Your task to perform on an android device: clear all cookies in the chrome app Image 0: 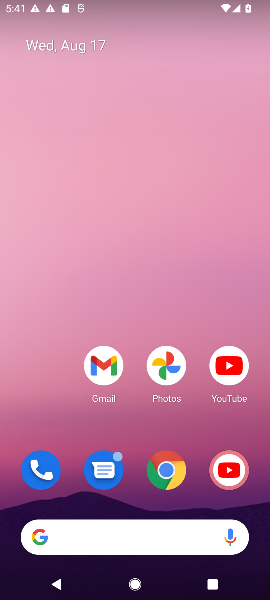
Step 0: click (151, 475)
Your task to perform on an android device: clear all cookies in the chrome app Image 1: 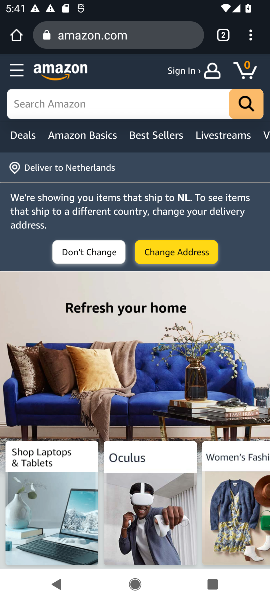
Step 1: click (254, 33)
Your task to perform on an android device: clear all cookies in the chrome app Image 2: 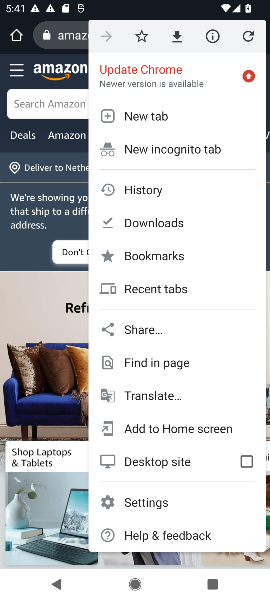
Step 2: click (145, 188)
Your task to perform on an android device: clear all cookies in the chrome app Image 3: 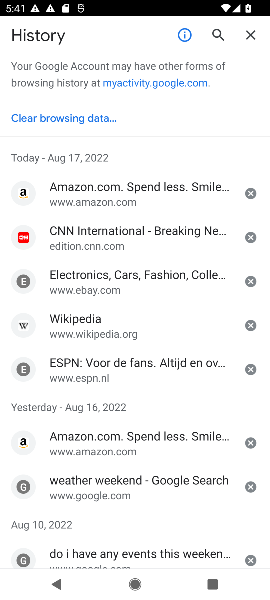
Step 3: click (74, 126)
Your task to perform on an android device: clear all cookies in the chrome app Image 4: 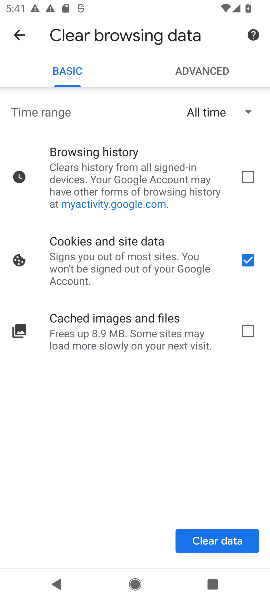
Step 4: click (201, 540)
Your task to perform on an android device: clear all cookies in the chrome app Image 5: 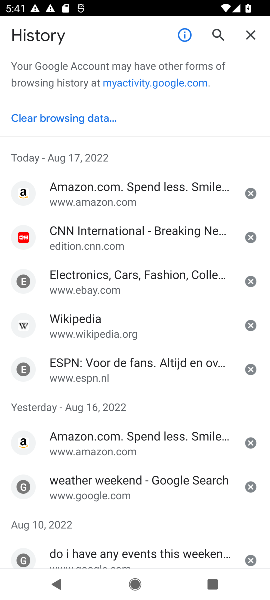
Step 5: task complete